Your task to perform on an android device: remove spam from my inbox in the gmail app Image 0: 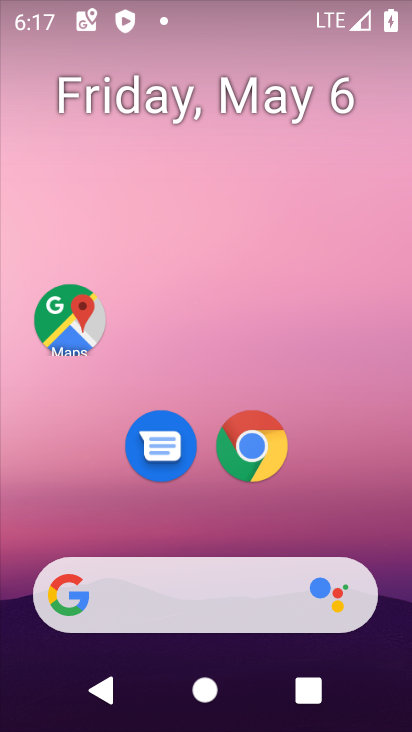
Step 0: drag from (310, 519) to (343, 184)
Your task to perform on an android device: remove spam from my inbox in the gmail app Image 1: 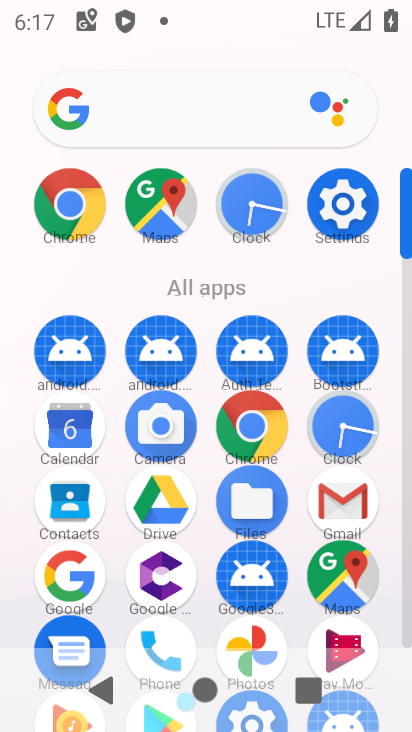
Step 1: click (381, 537)
Your task to perform on an android device: remove spam from my inbox in the gmail app Image 2: 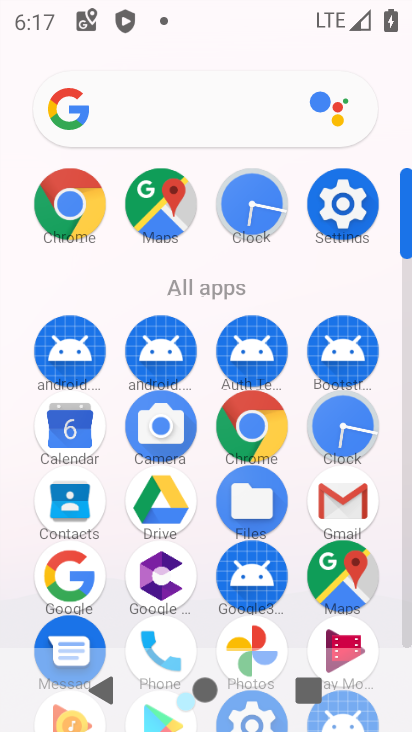
Step 2: click (377, 519)
Your task to perform on an android device: remove spam from my inbox in the gmail app Image 3: 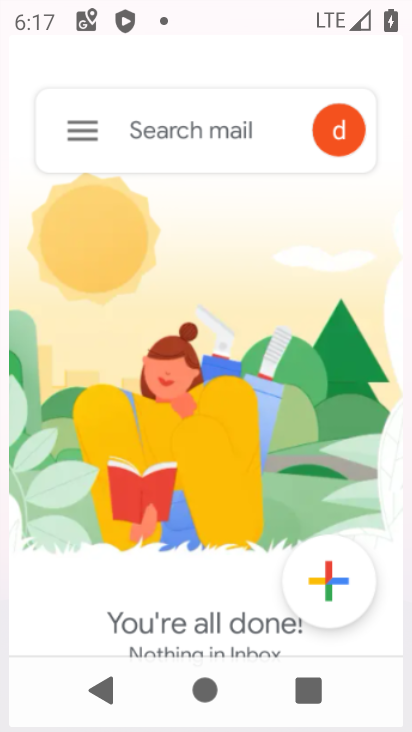
Step 3: click (342, 493)
Your task to perform on an android device: remove spam from my inbox in the gmail app Image 4: 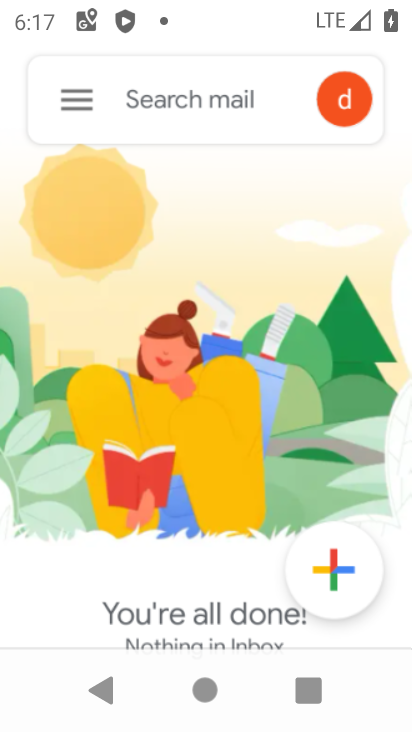
Step 4: click (75, 102)
Your task to perform on an android device: remove spam from my inbox in the gmail app Image 5: 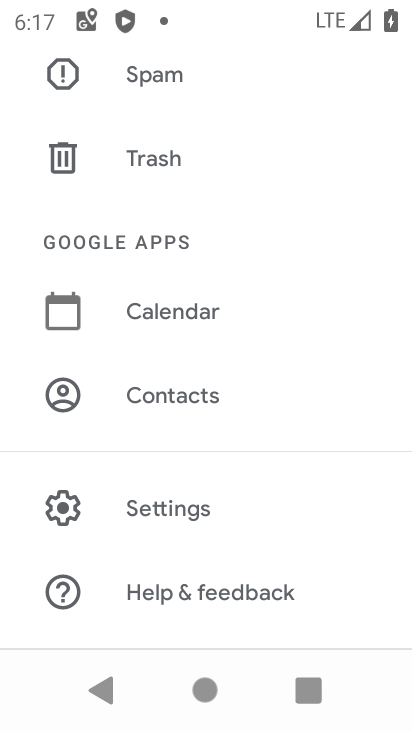
Step 5: click (170, 91)
Your task to perform on an android device: remove spam from my inbox in the gmail app Image 6: 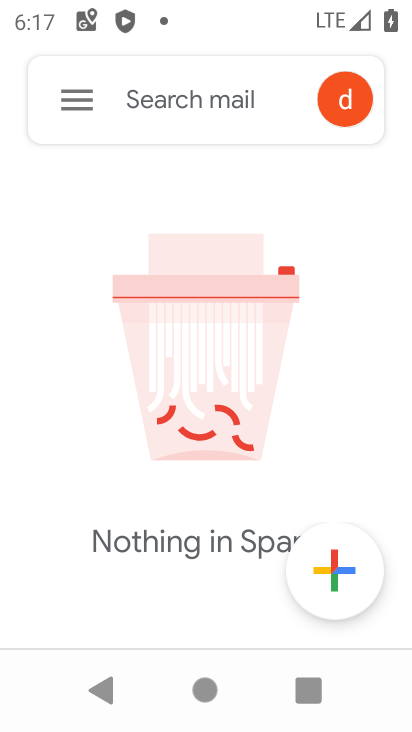
Step 6: task complete